Your task to perform on an android device: View the shopping cart on newegg. Add "razer nari" to the cart on newegg, then select checkout. Image 0: 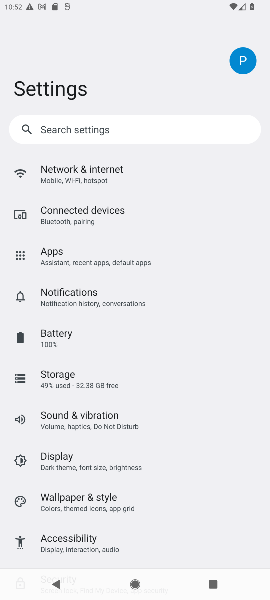
Step 0: press home button
Your task to perform on an android device: View the shopping cart on newegg. Add "razer nari" to the cart on newegg, then select checkout. Image 1: 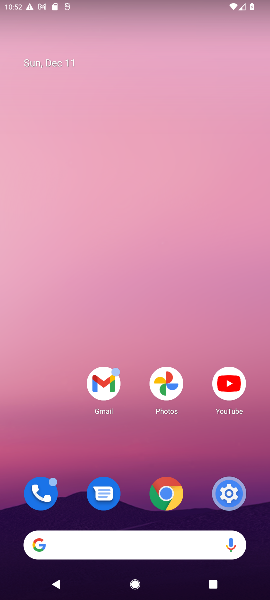
Step 1: click (144, 549)
Your task to perform on an android device: View the shopping cart on newegg. Add "razer nari" to the cart on newegg, then select checkout. Image 2: 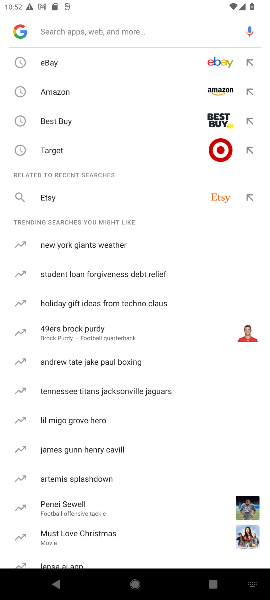
Step 2: type "newegg"
Your task to perform on an android device: View the shopping cart on newegg. Add "razer nari" to the cart on newegg, then select checkout. Image 3: 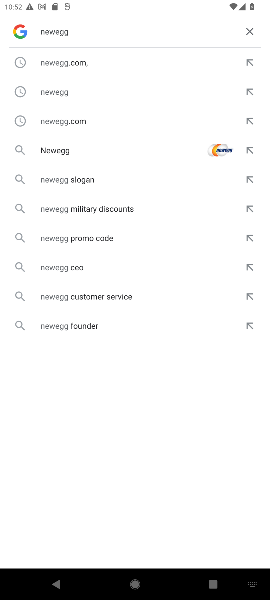
Step 3: click (74, 74)
Your task to perform on an android device: View the shopping cart on newegg. Add "razer nari" to the cart on newegg, then select checkout. Image 4: 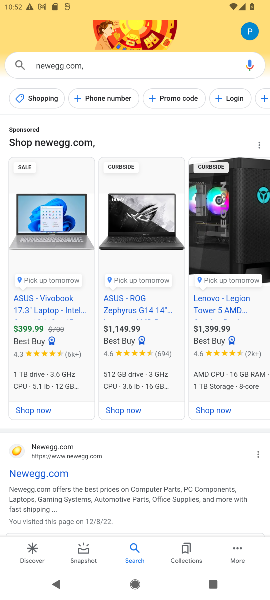
Step 4: click (47, 470)
Your task to perform on an android device: View the shopping cart on newegg. Add "razer nari" to the cart on newegg, then select checkout. Image 5: 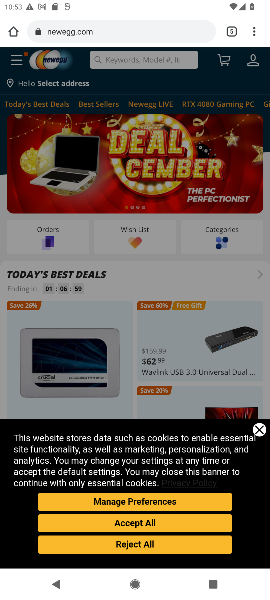
Step 5: click (116, 62)
Your task to perform on an android device: View the shopping cart on newegg. Add "razer nari" to the cart on newegg, then select checkout. Image 6: 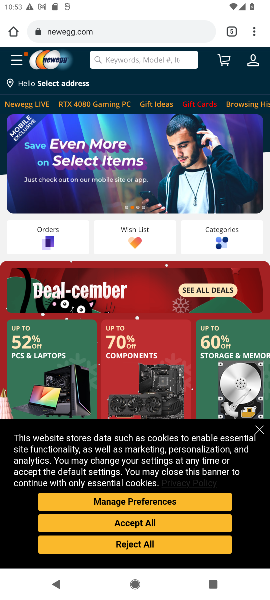
Step 6: click (167, 525)
Your task to perform on an android device: View the shopping cart on newegg. Add "razer nari" to the cart on newegg, then select checkout. Image 7: 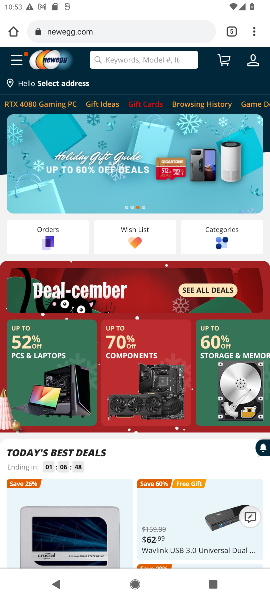
Step 7: click (131, 58)
Your task to perform on an android device: View the shopping cart on newegg. Add "razer nari" to the cart on newegg, then select checkout. Image 8: 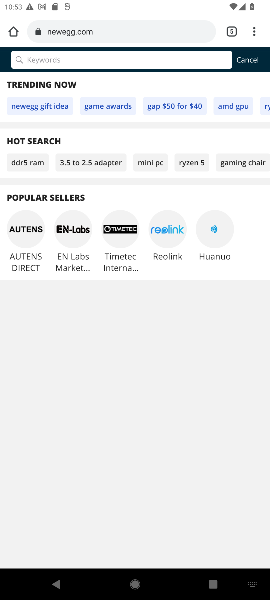
Step 8: type "razer nari"
Your task to perform on an android device: View the shopping cart on newegg. Add "razer nari" to the cart on newegg, then select checkout. Image 9: 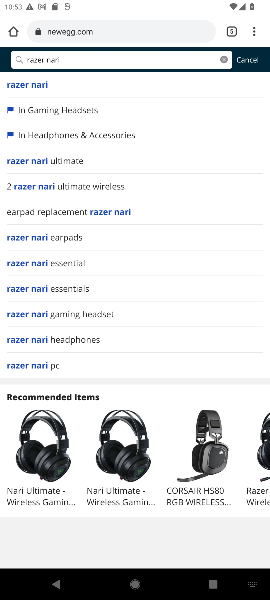
Step 9: click (34, 80)
Your task to perform on an android device: View the shopping cart on newegg. Add "razer nari" to the cart on newegg, then select checkout. Image 10: 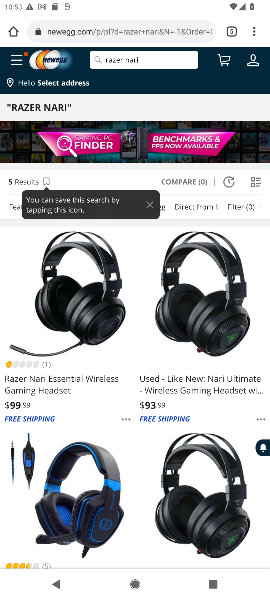
Step 10: click (69, 331)
Your task to perform on an android device: View the shopping cart on newegg. Add "razer nari" to the cart on newegg, then select checkout. Image 11: 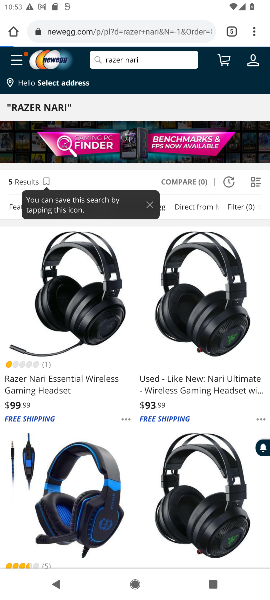
Step 11: click (147, 209)
Your task to perform on an android device: View the shopping cart on newegg. Add "razer nari" to the cart on newegg, then select checkout. Image 12: 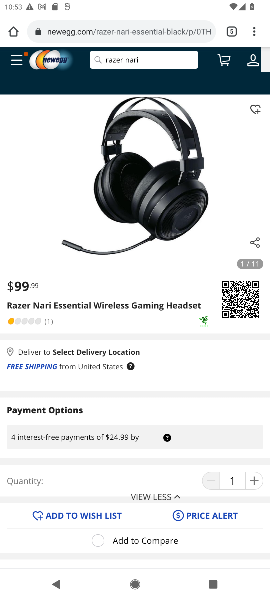
Step 12: click (111, 383)
Your task to perform on an android device: View the shopping cart on newegg. Add "razer nari" to the cart on newegg, then select checkout. Image 13: 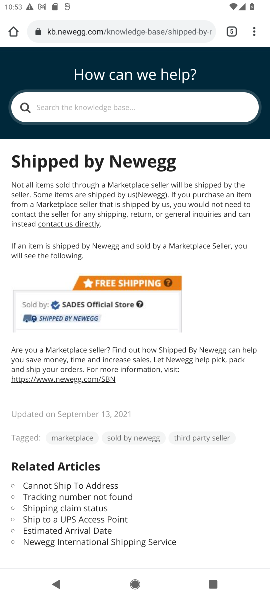
Step 13: task complete